Your task to perform on an android device: Go to ESPN.com Image 0: 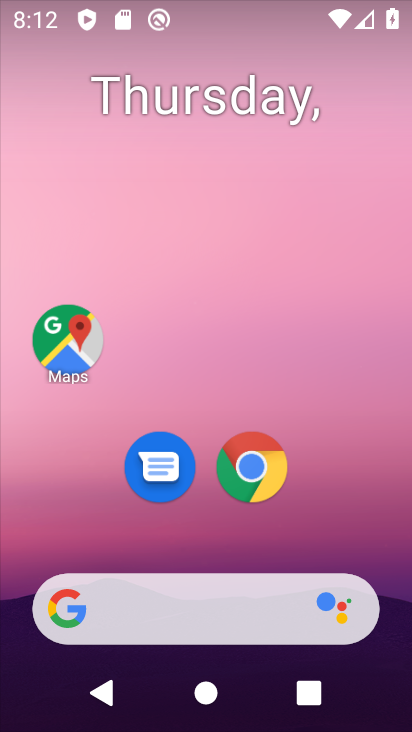
Step 0: click (249, 458)
Your task to perform on an android device: Go to ESPN.com Image 1: 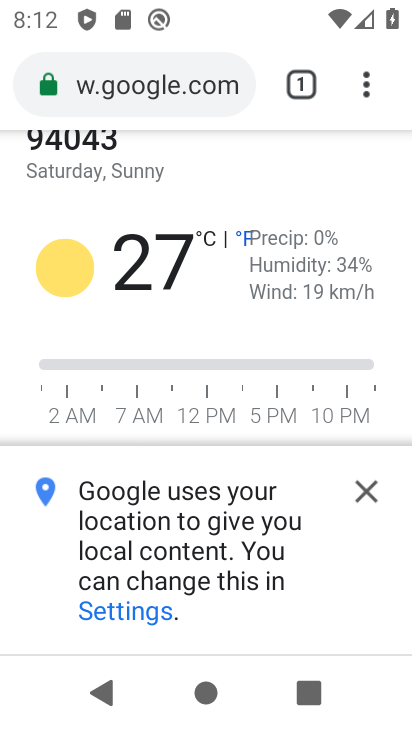
Step 1: click (354, 77)
Your task to perform on an android device: Go to ESPN.com Image 2: 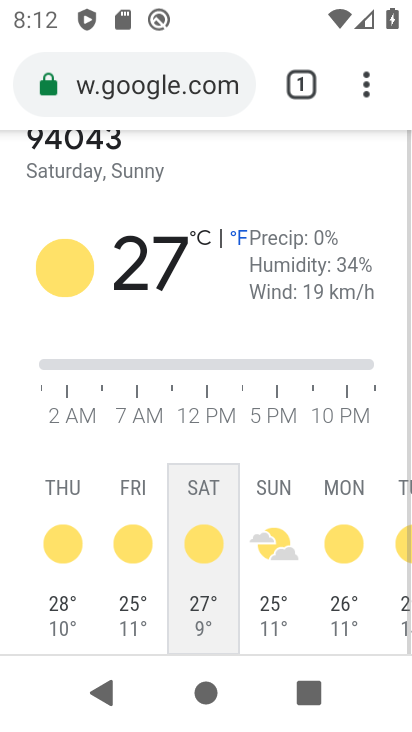
Step 2: click (366, 86)
Your task to perform on an android device: Go to ESPN.com Image 3: 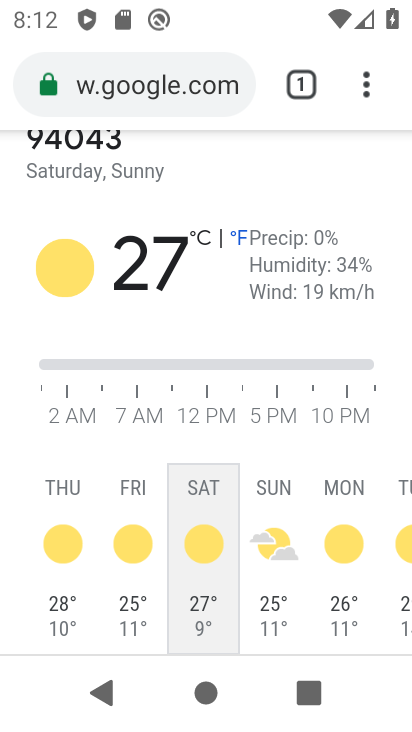
Step 3: click (361, 76)
Your task to perform on an android device: Go to ESPN.com Image 4: 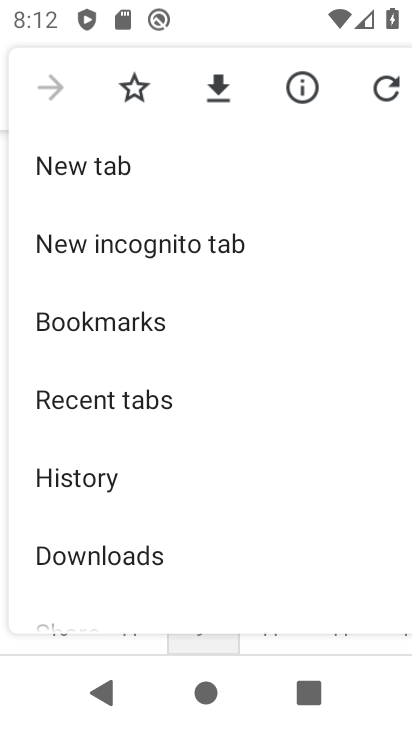
Step 4: click (150, 174)
Your task to perform on an android device: Go to ESPN.com Image 5: 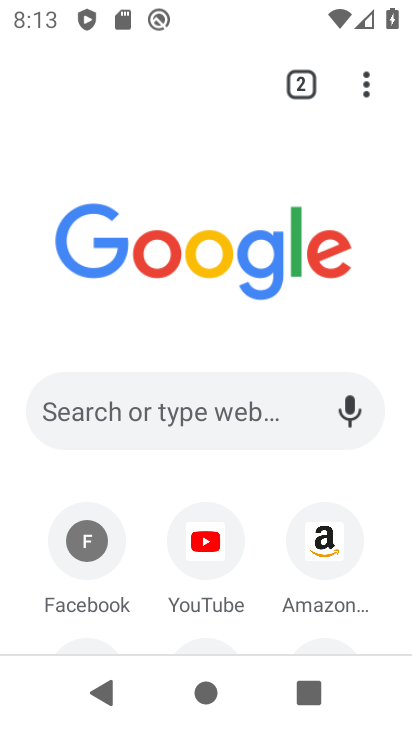
Step 5: click (181, 391)
Your task to perform on an android device: Go to ESPN.com Image 6: 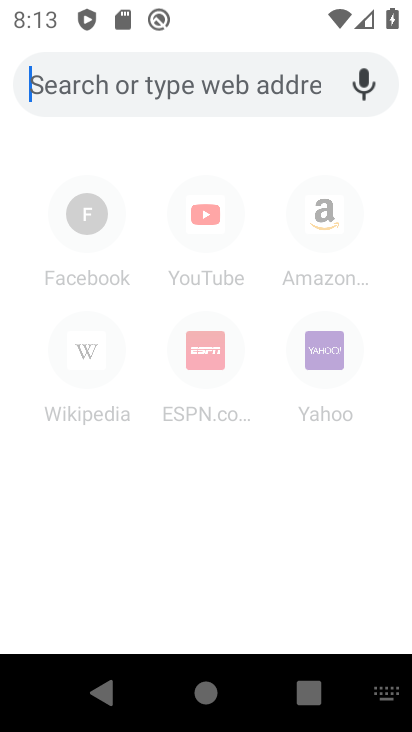
Step 6: type "ESPN.com"
Your task to perform on an android device: Go to ESPN.com Image 7: 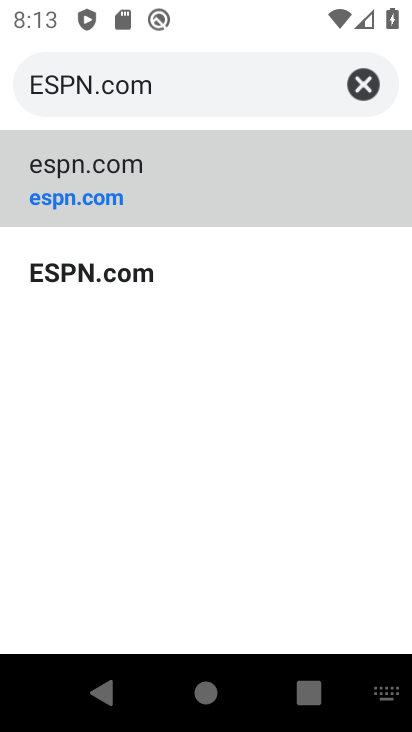
Step 7: click (125, 202)
Your task to perform on an android device: Go to ESPN.com Image 8: 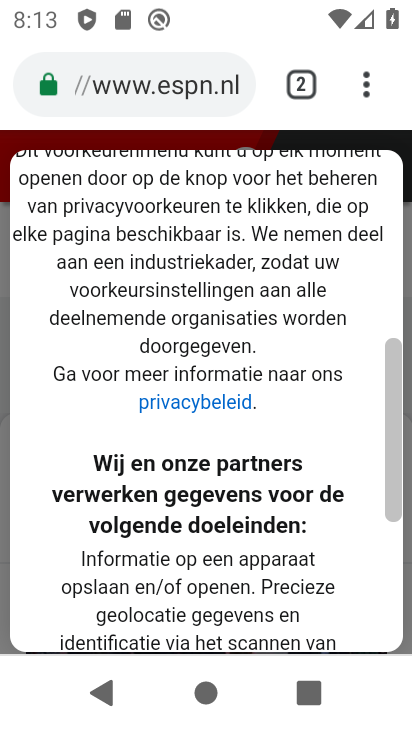
Step 8: task complete